Your task to perform on an android device: turn on bluetooth scan Image 0: 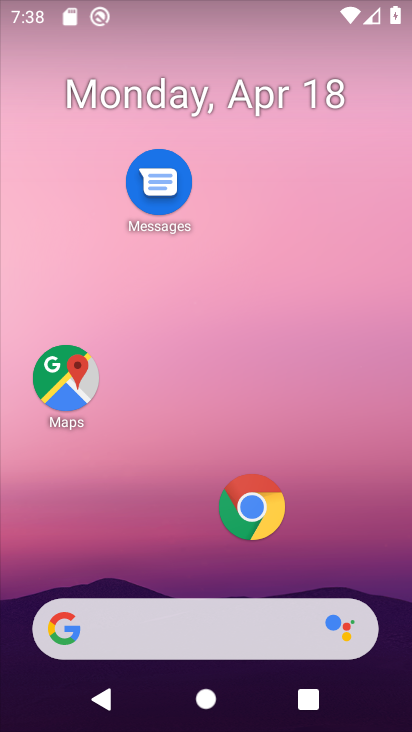
Step 0: drag from (242, 532) to (260, 126)
Your task to perform on an android device: turn on bluetooth scan Image 1: 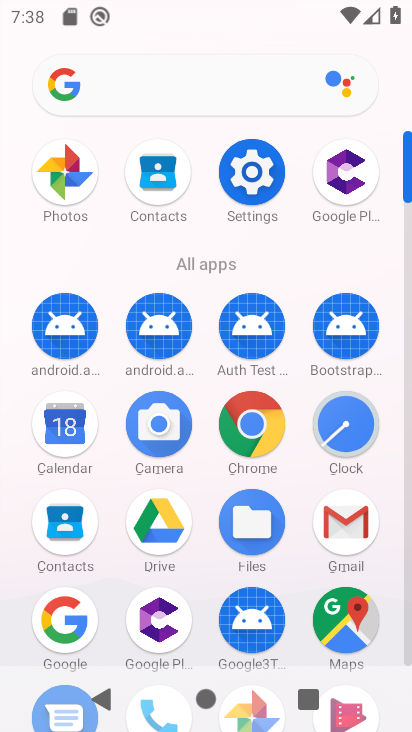
Step 1: click (246, 171)
Your task to perform on an android device: turn on bluetooth scan Image 2: 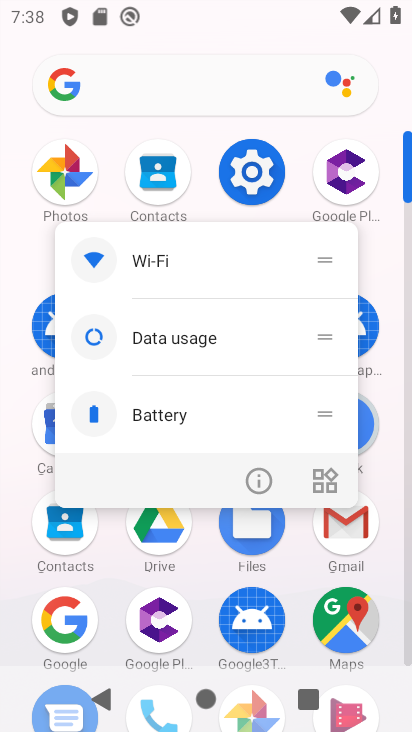
Step 2: click (246, 171)
Your task to perform on an android device: turn on bluetooth scan Image 3: 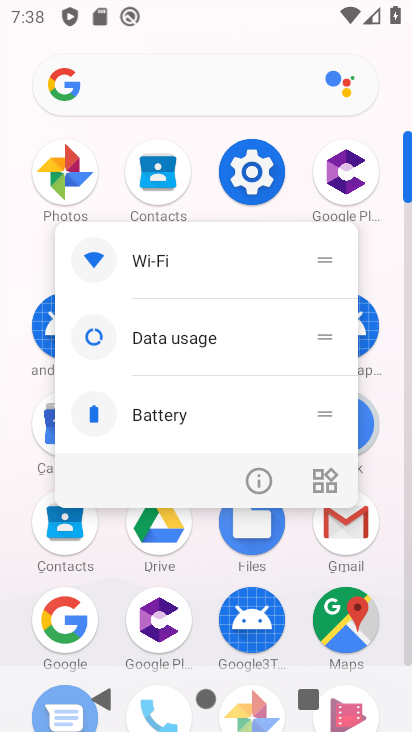
Step 3: click (257, 174)
Your task to perform on an android device: turn on bluetooth scan Image 4: 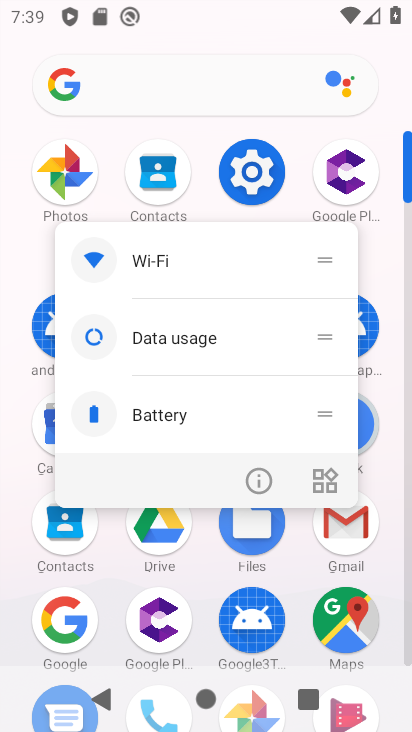
Step 4: click (257, 174)
Your task to perform on an android device: turn on bluetooth scan Image 5: 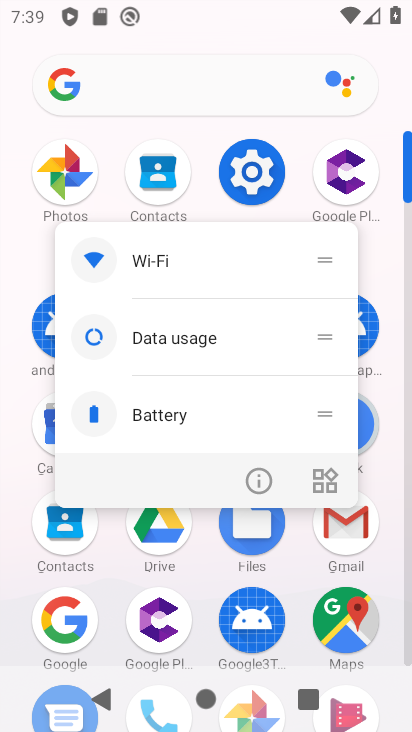
Step 5: click (248, 171)
Your task to perform on an android device: turn on bluetooth scan Image 6: 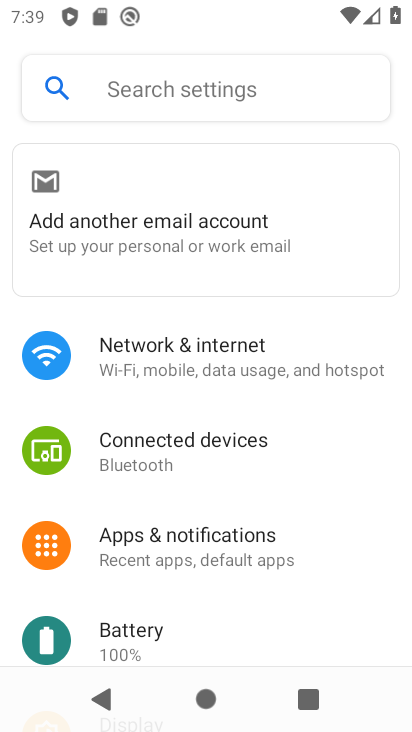
Step 6: drag from (166, 643) to (216, 306)
Your task to perform on an android device: turn on bluetooth scan Image 7: 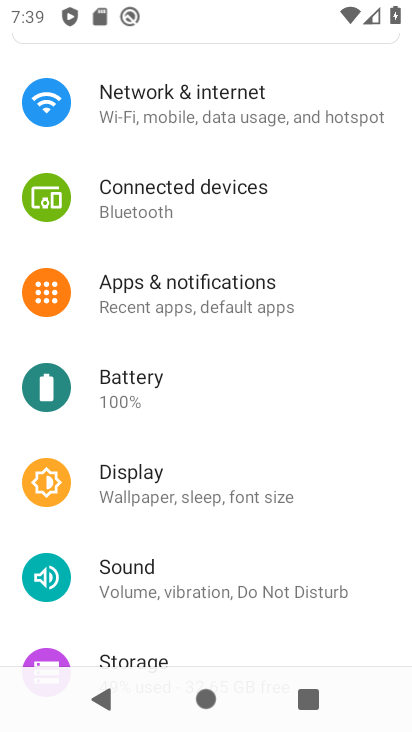
Step 7: drag from (172, 646) to (173, 336)
Your task to perform on an android device: turn on bluetooth scan Image 8: 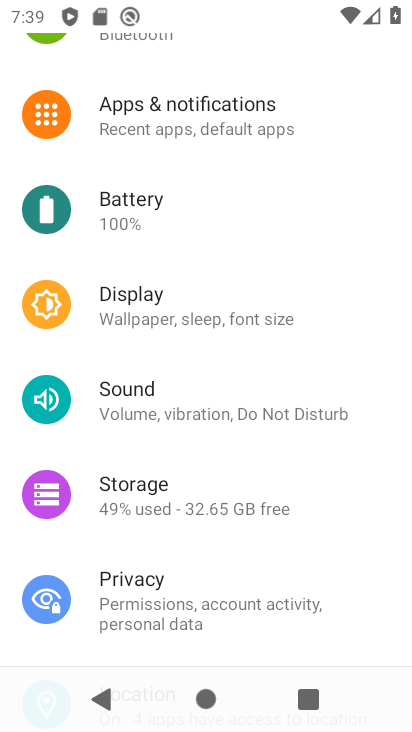
Step 8: drag from (171, 637) to (170, 321)
Your task to perform on an android device: turn on bluetooth scan Image 9: 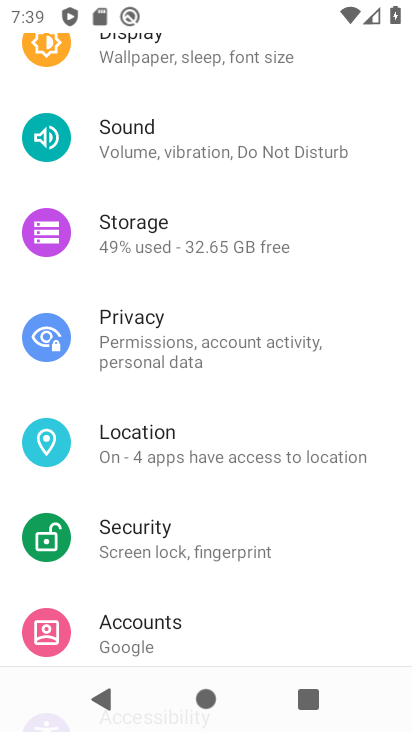
Step 9: click (141, 456)
Your task to perform on an android device: turn on bluetooth scan Image 10: 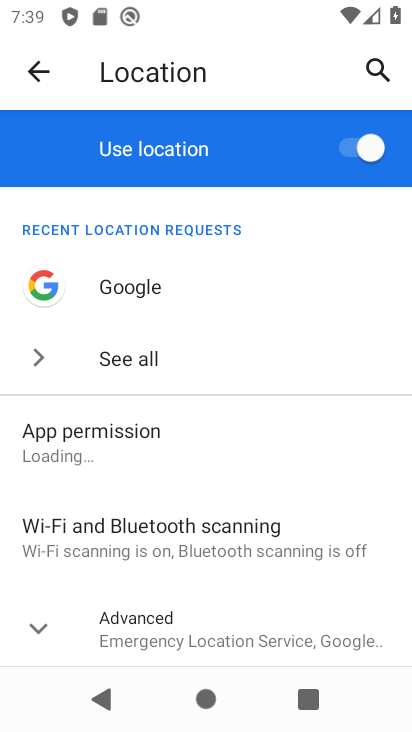
Step 10: click (136, 532)
Your task to perform on an android device: turn on bluetooth scan Image 11: 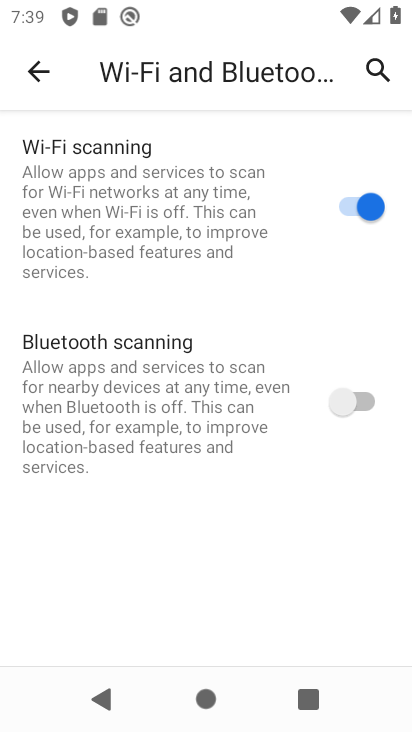
Step 11: click (359, 402)
Your task to perform on an android device: turn on bluetooth scan Image 12: 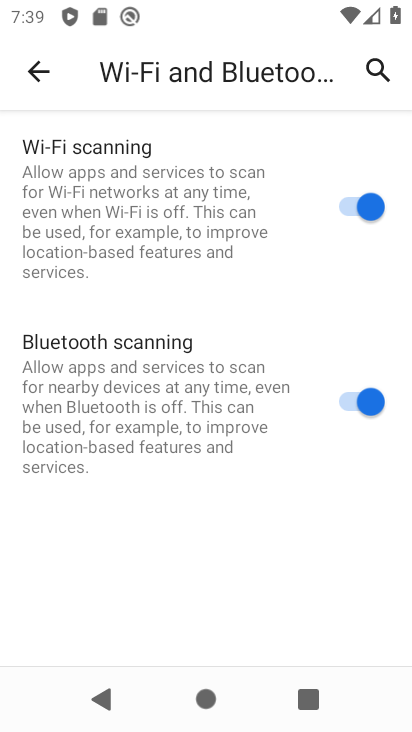
Step 12: task complete